Your task to perform on an android device: turn notification dots on Image 0: 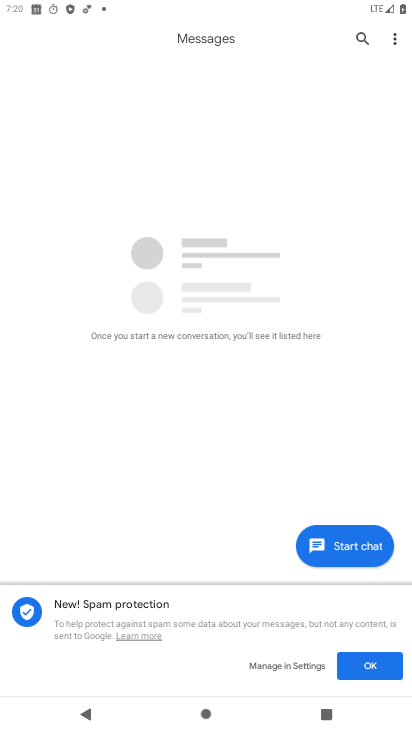
Step 0: press home button
Your task to perform on an android device: turn notification dots on Image 1: 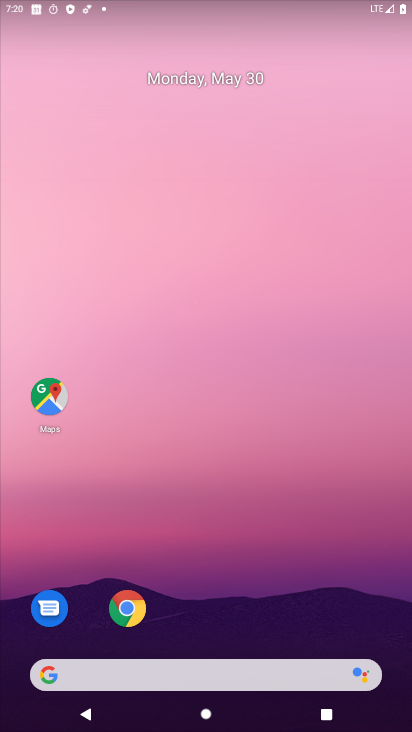
Step 1: drag from (214, 599) to (372, 155)
Your task to perform on an android device: turn notification dots on Image 2: 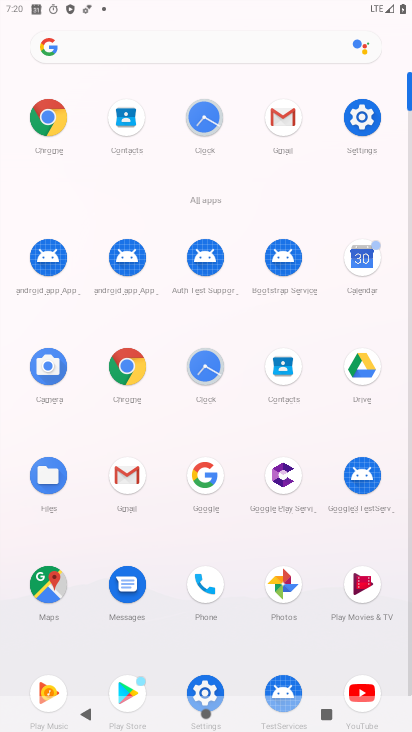
Step 2: click (361, 119)
Your task to perform on an android device: turn notification dots on Image 3: 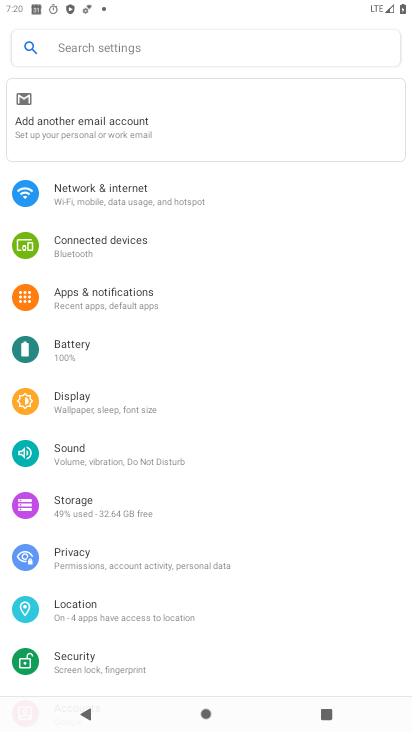
Step 3: click (132, 301)
Your task to perform on an android device: turn notification dots on Image 4: 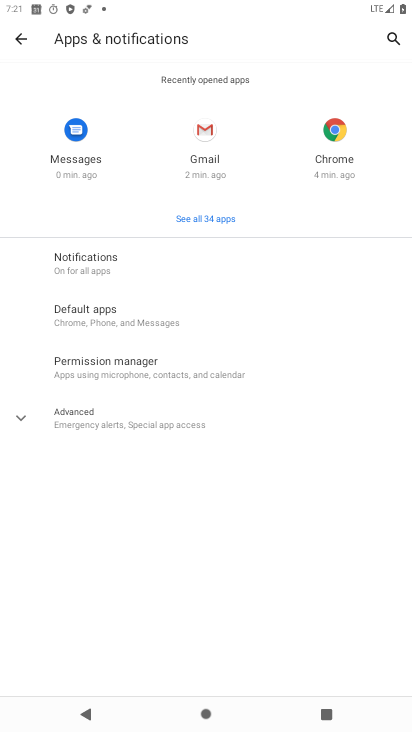
Step 4: click (90, 276)
Your task to perform on an android device: turn notification dots on Image 5: 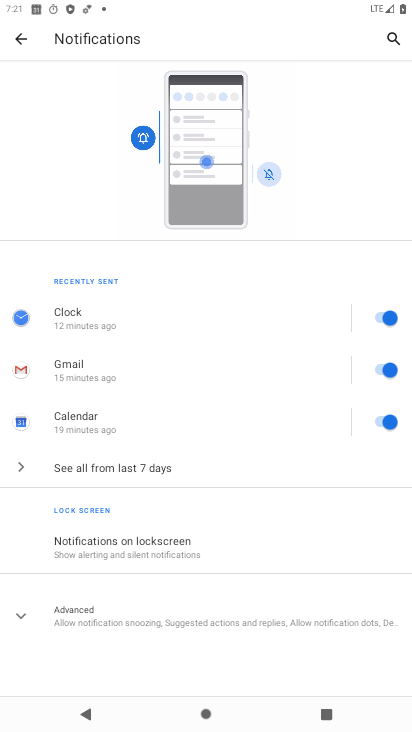
Step 5: click (141, 542)
Your task to perform on an android device: turn notification dots on Image 6: 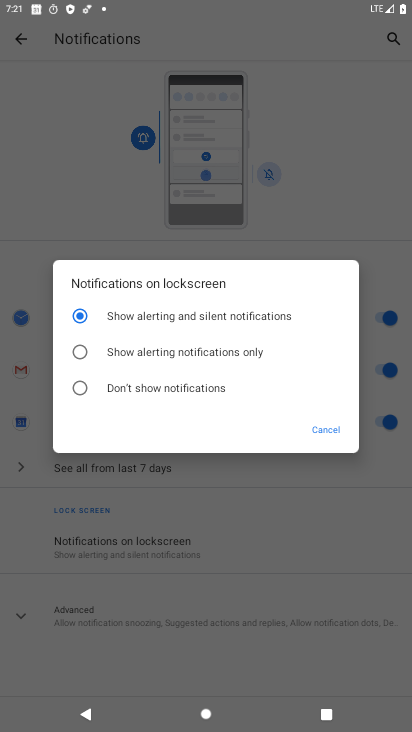
Step 6: click (105, 622)
Your task to perform on an android device: turn notification dots on Image 7: 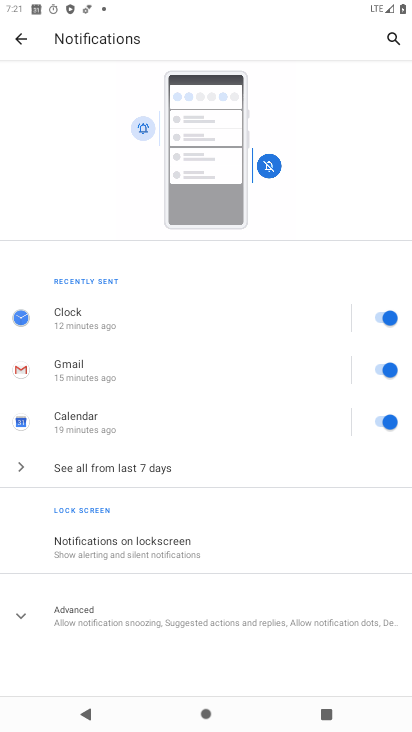
Step 7: click (15, 614)
Your task to perform on an android device: turn notification dots on Image 8: 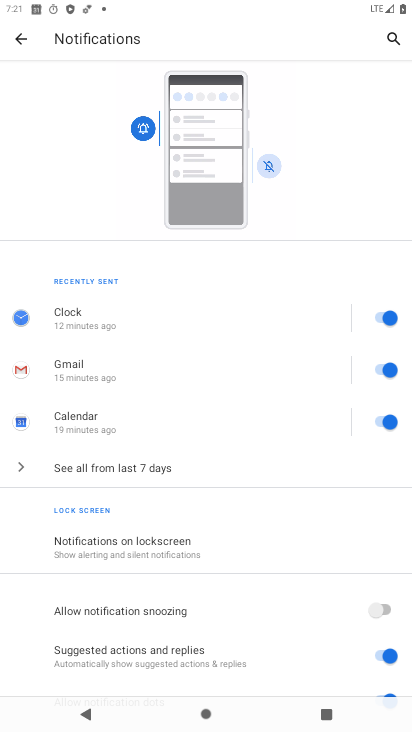
Step 8: task complete